Your task to perform on an android device: Open sound settings Image 0: 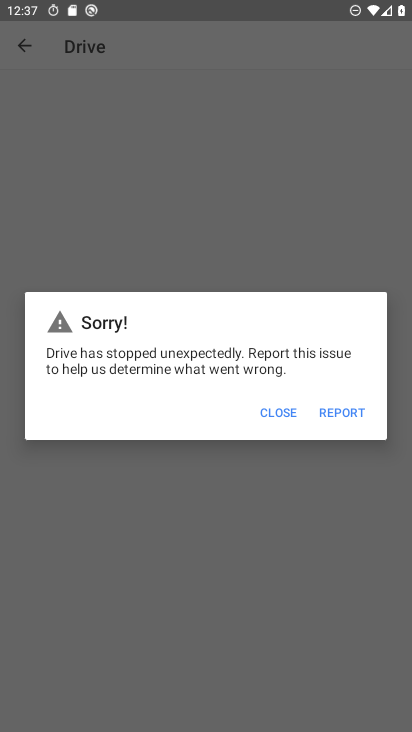
Step 0: press home button
Your task to perform on an android device: Open sound settings Image 1: 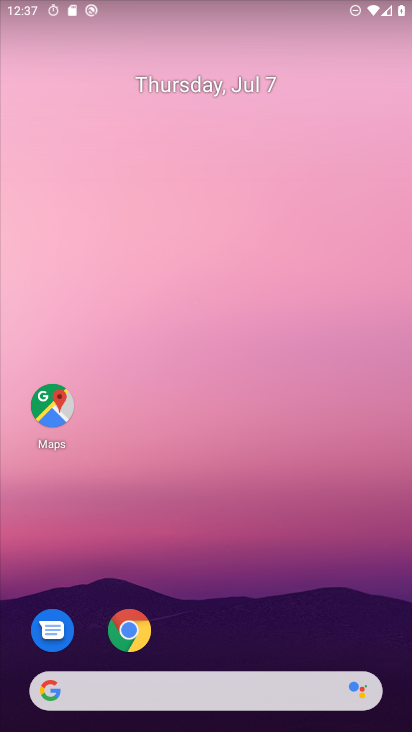
Step 1: drag from (233, 581) to (288, 288)
Your task to perform on an android device: Open sound settings Image 2: 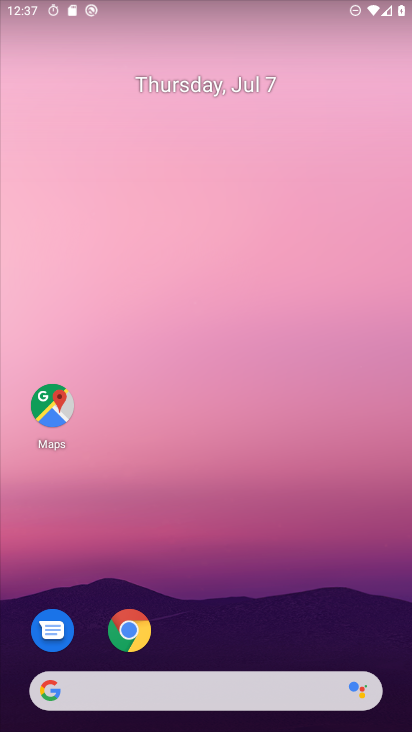
Step 2: drag from (173, 661) to (199, 20)
Your task to perform on an android device: Open sound settings Image 3: 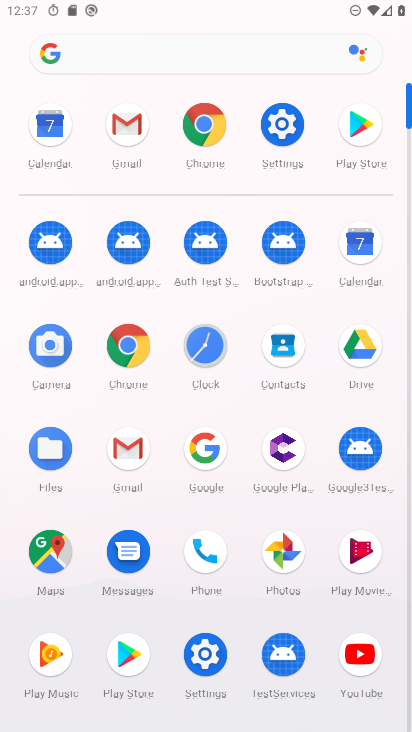
Step 3: click (280, 120)
Your task to perform on an android device: Open sound settings Image 4: 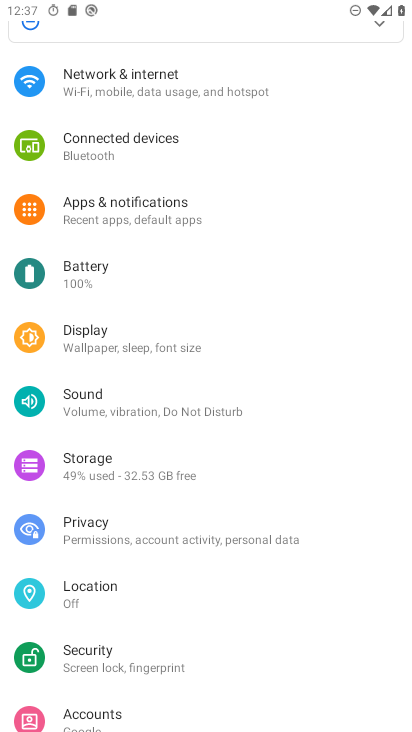
Step 4: click (146, 415)
Your task to perform on an android device: Open sound settings Image 5: 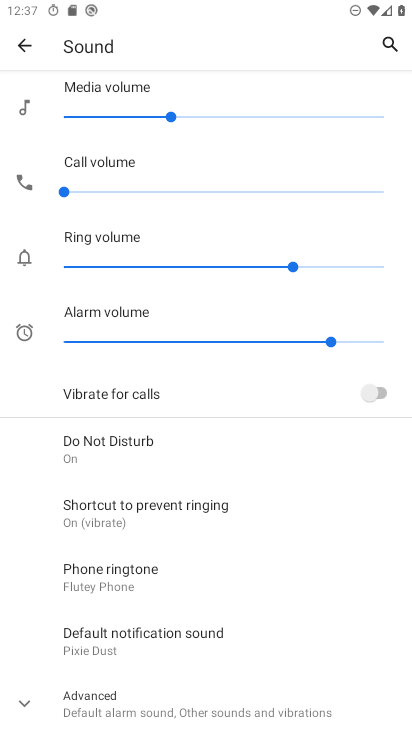
Step 5: drag from (131, 466) to (171, 314)
Your task to perform on an android device: Open sound settings Image 6: 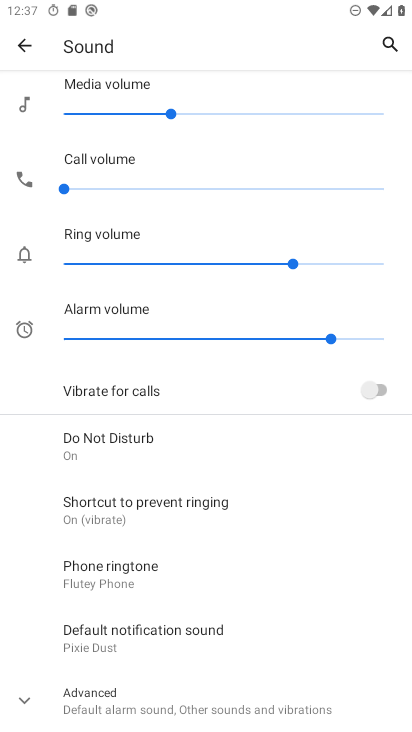
Step 6: click (140, 394)
Your task to perform on an android device: Open sound settings Image 7: 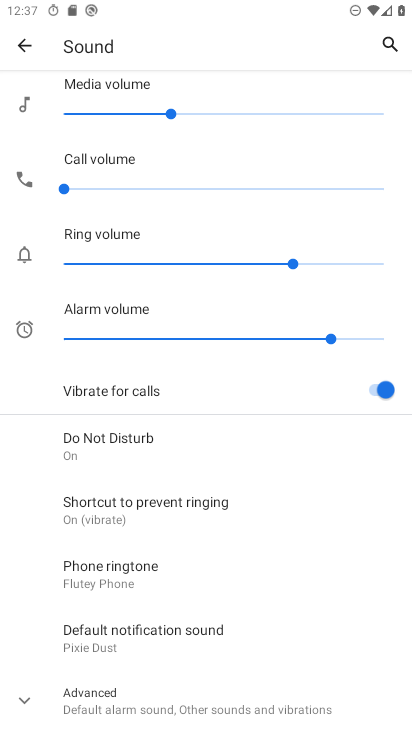
Step 7: task complete